Your task to perform on an android device: turn off notifications settings in the gmail app Image 0: 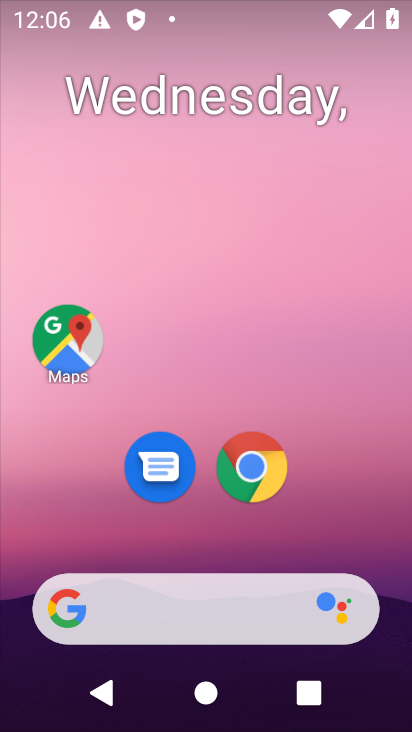
Step 0: drag from (215, 76) to (221, 3)
Your task to perform on an android device: turn off notifications settings in the gmail app Image 1: 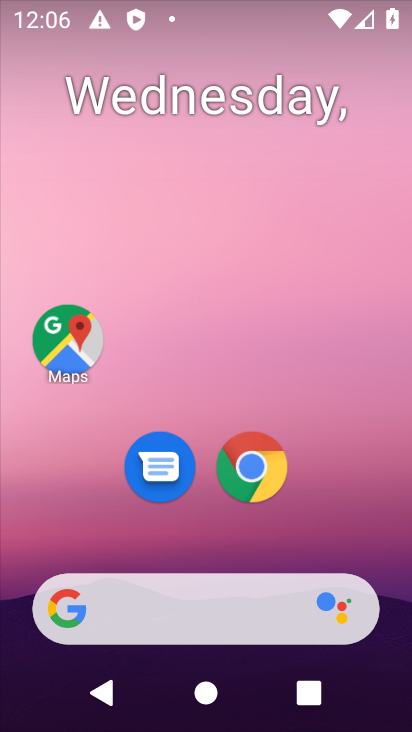
Step 1: drag from (189, 553) to (239, 0)
Your task to perform on an android device: turn off notifications settings in the gmail app Image 2: 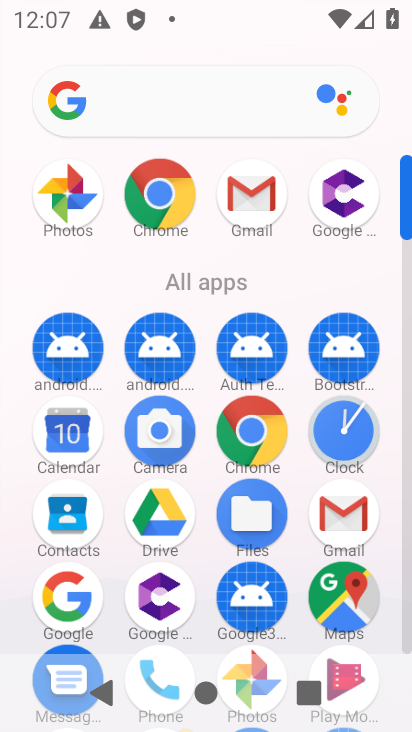
Step 2: click (169, 175)
Your task to perform on an android device: turn off notifications settings in the gmail app Image 3: 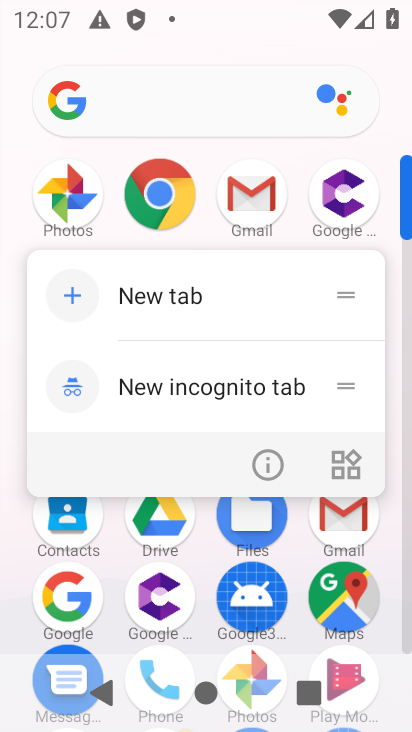
Step 3: click (216, 124)
Your task to perform on an android device: turn off notifications settings in the gmail app Image 4: 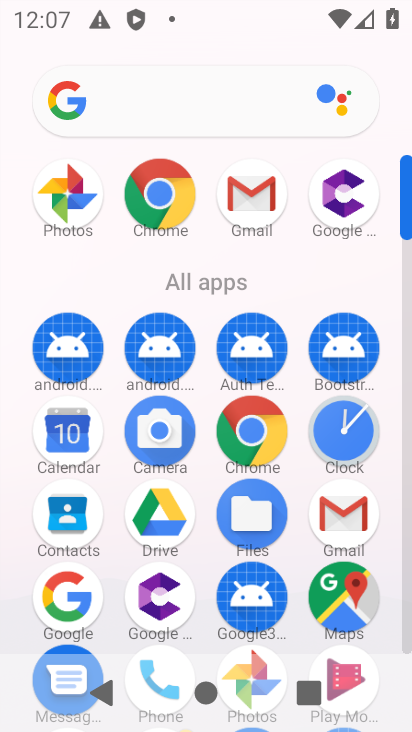
Step 4: click (253, 183)
Your task to perform on an android device: turn off notifications settings in the gmail app Image 5: 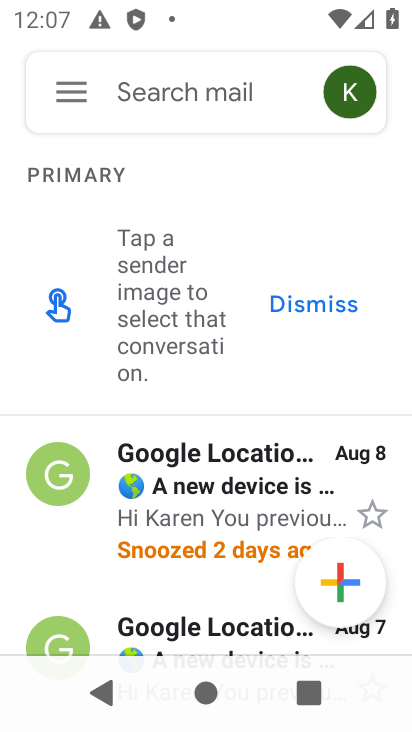
Step 5: click (68, 100)
Your task to perform on an android device: turn off notifications settings in the gmail app Image 6: 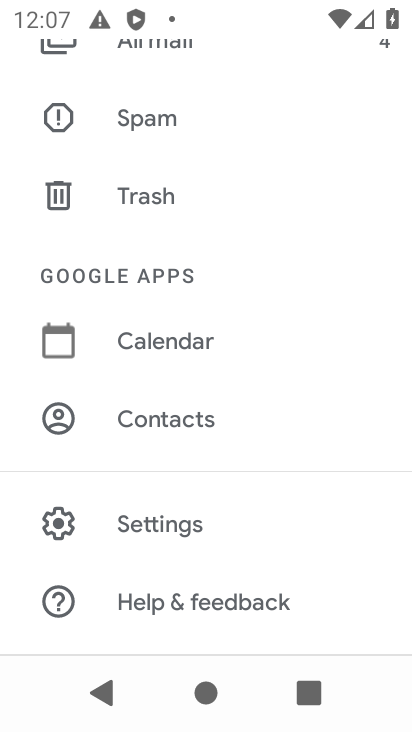
Step 6: click (127, 526)
Your task to perform on an android device: turn off notifications settings in the gmail app Image 7: 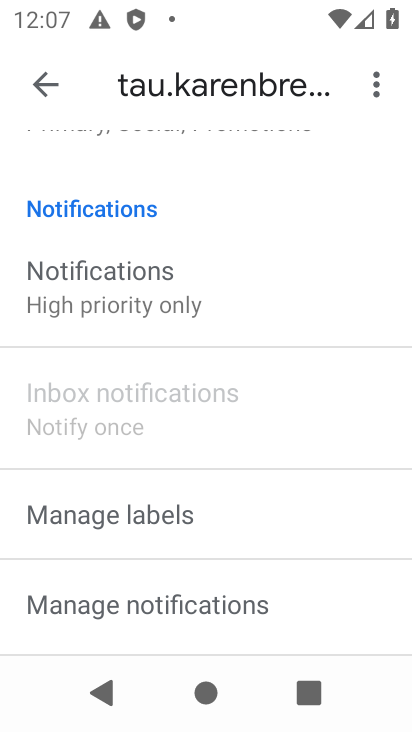
Step 7: click (234, 282)
Your task to perform on an android device: turn off notifications settings in the gmail app Image 8: 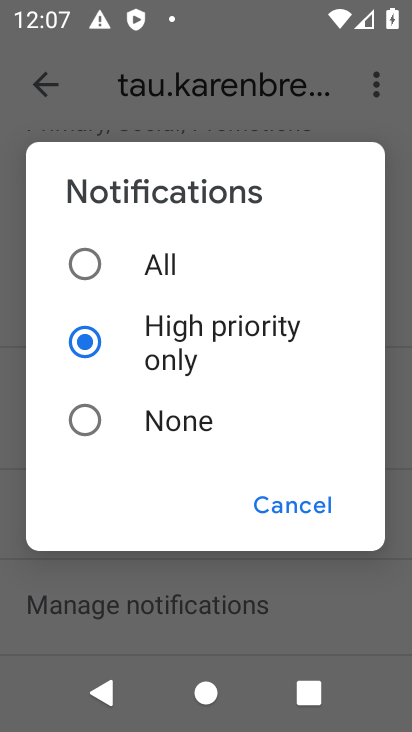
Step 8: click (128, 436)
Your task to perform on an android device: turn off notifications settings in the gmail app Image 9: 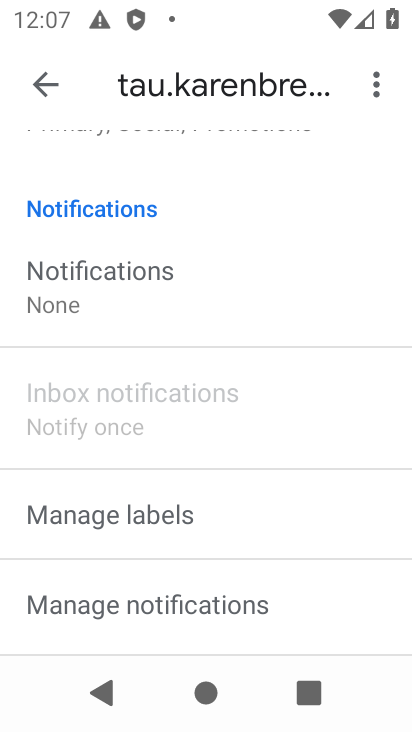
Step 9: task complete